Your task to perform on an android device: Show me popular games on the Play Store Image 0: 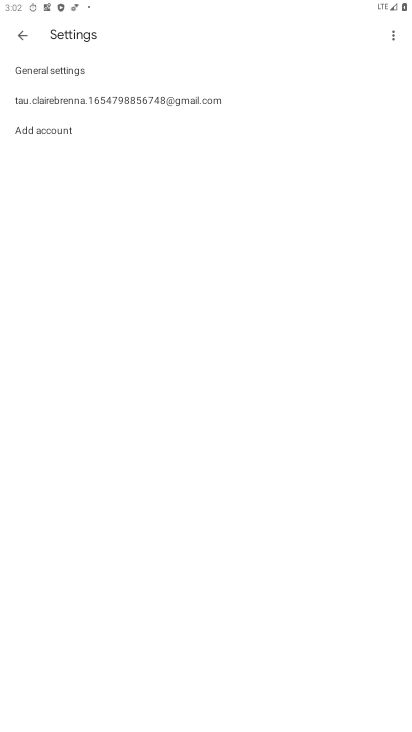
Step 0: press home button
Your task to perform on an android device: Show me popular games on the Play Store Image 1: 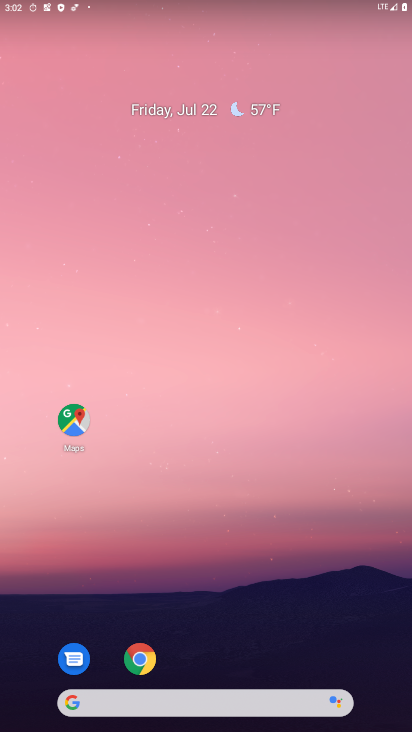
Step 1: drag from (303, 632) to (295, 60)
Your task to perform on an android device: Show me popular games on the Play Store Image 2: 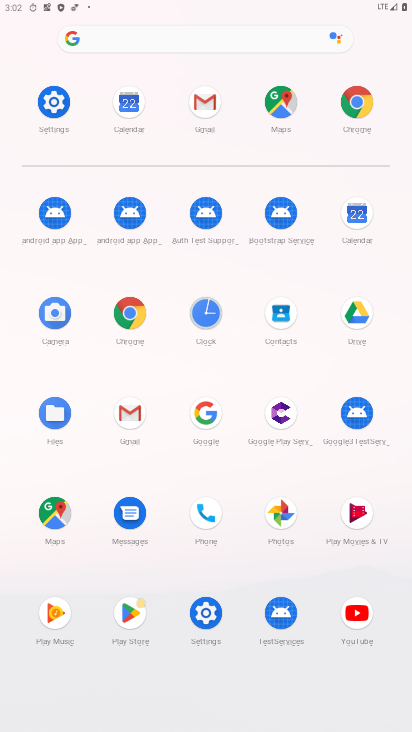
Step 2: click (124, 611)
Your task to perform on an android device: Show me popular games on the Play Store Image 3: 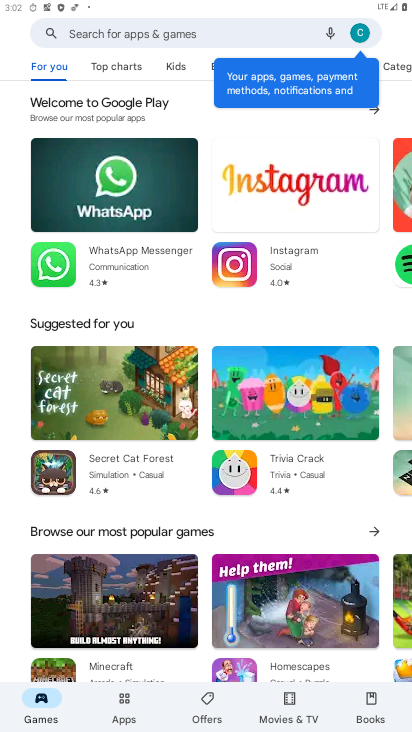
Step 3: click (112, 58)
Your task to perform on an android device: Show me popular games on the Play Store Image 4: 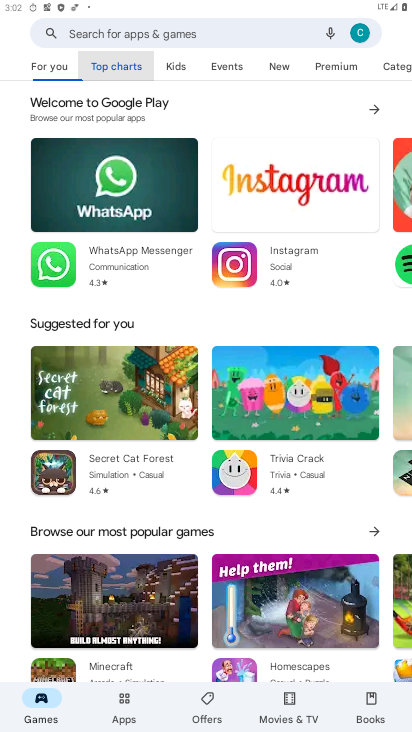
Step 4: click (118, 68)
Your task to perform on an android device: Show me popular games on the Play Store Image 5: 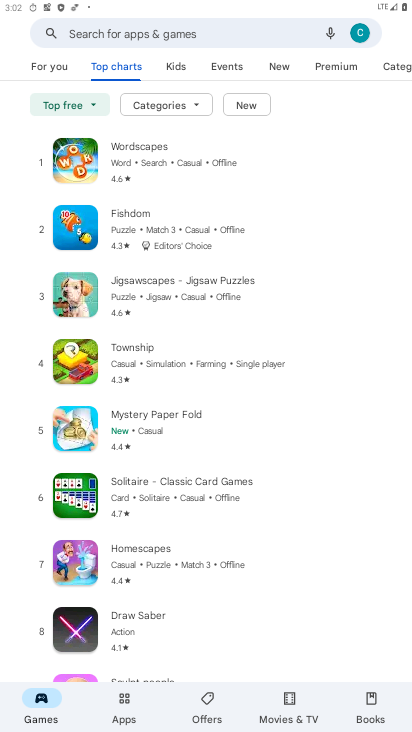
Step 5: task complete